Your task to perform on an android device: add a label to a message in the gmail app Image 0: 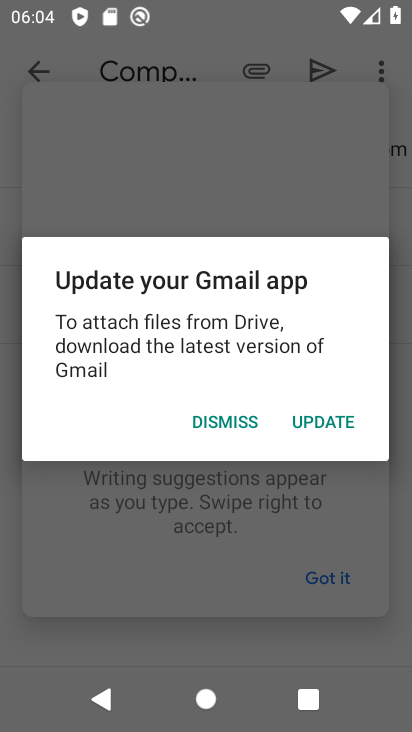
Step 0: press home button
Your task to perform on an android device: add a label to a message in the gmail app Image 1: 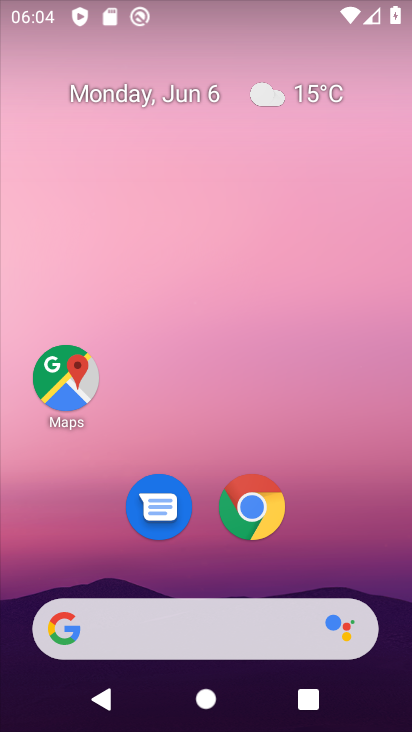
Step 1: drag from (209, 573) to (193, 2)
Your task to perform on an android device: add a label to a message in the gmail app Image 2: 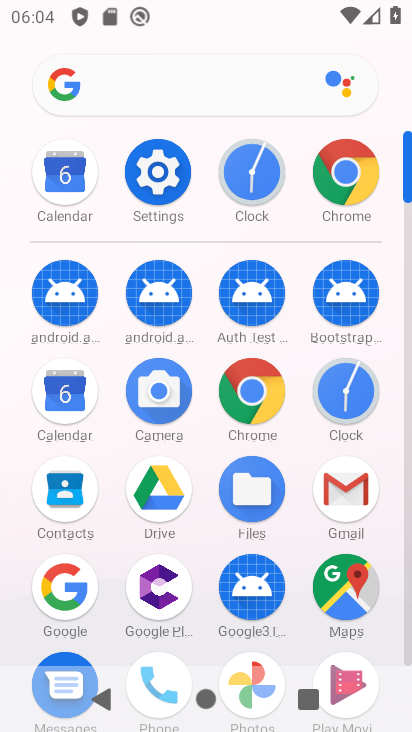
Step 2: click (329, 489)
Your task to perform on an android device: add a label to a message in the gmail app Image 3: 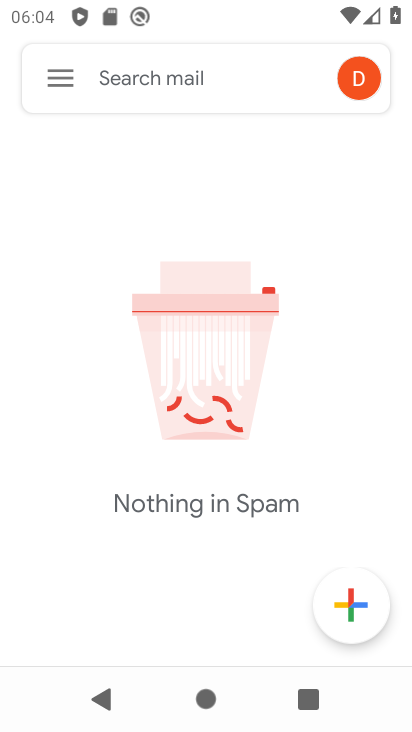
Step 3: click (54, 74)
Your task to perform on an android device: add a label to a message in the gmail app Image 4: 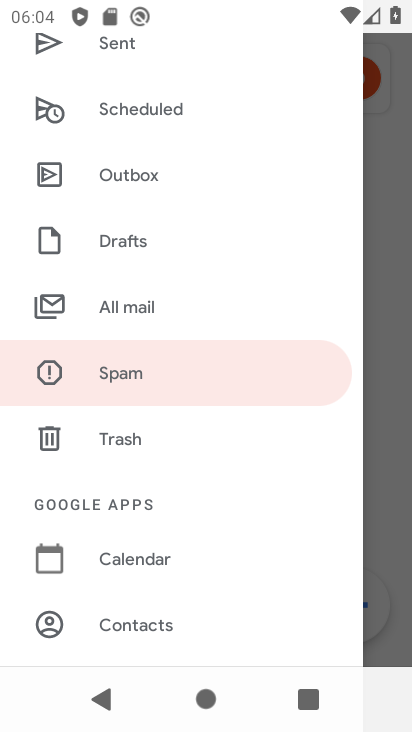
Step 4: click (130, 313)
Your task to perform on an android device: add a label to a message in the gmail app Image 5: 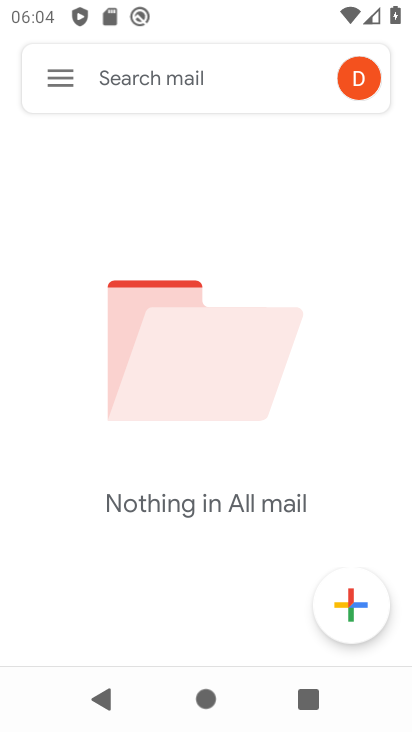
Step 5: task complete